Your task to perform on an android device: What's on Reddit today Image 0: 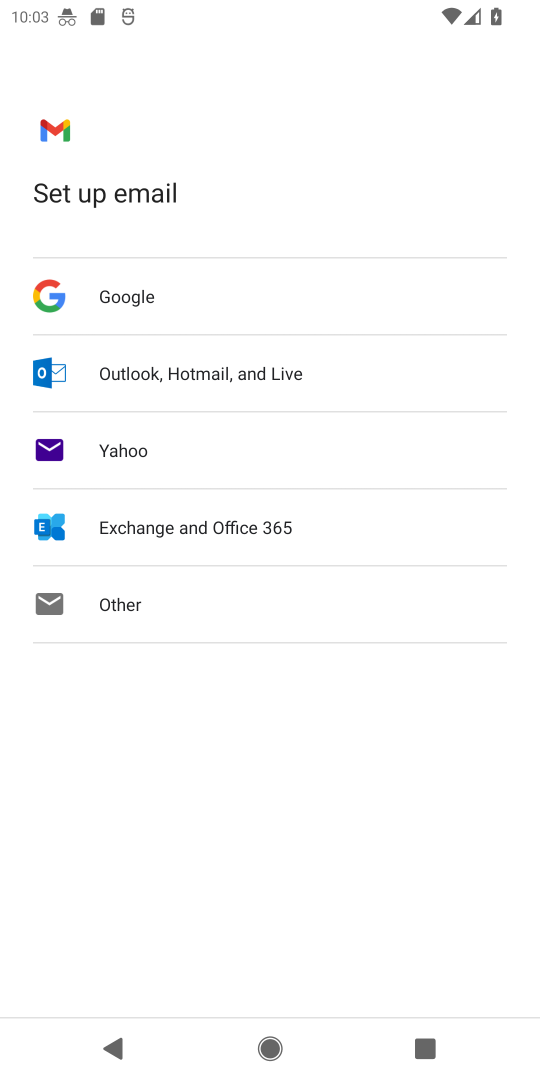
Step 0: press home button
Your task to perform on an android device: What's on Reddit today Image 1: 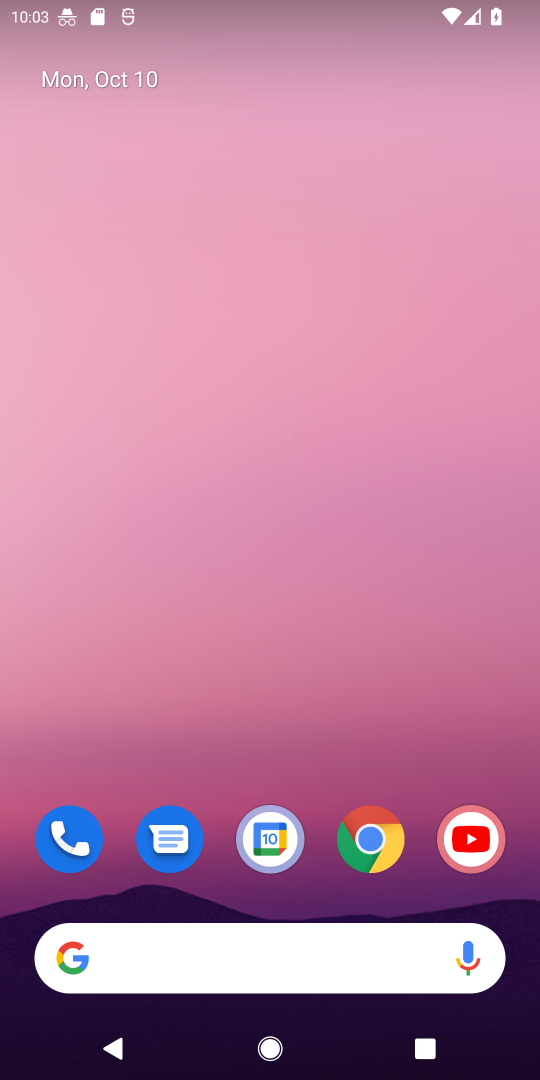
Step 1: drag from (351, 721) to (346, 3)
Your task to perform on an android device: What's on Reddit today Image 2: 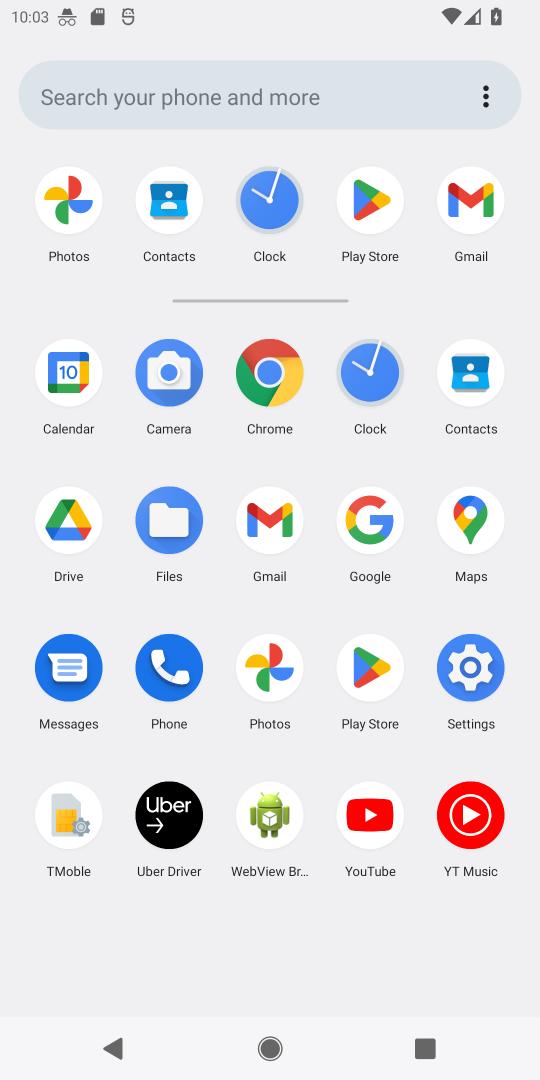
Step 2: click (280, 379)
Your task to perform on an android device: What's on Reddit today Image 3: 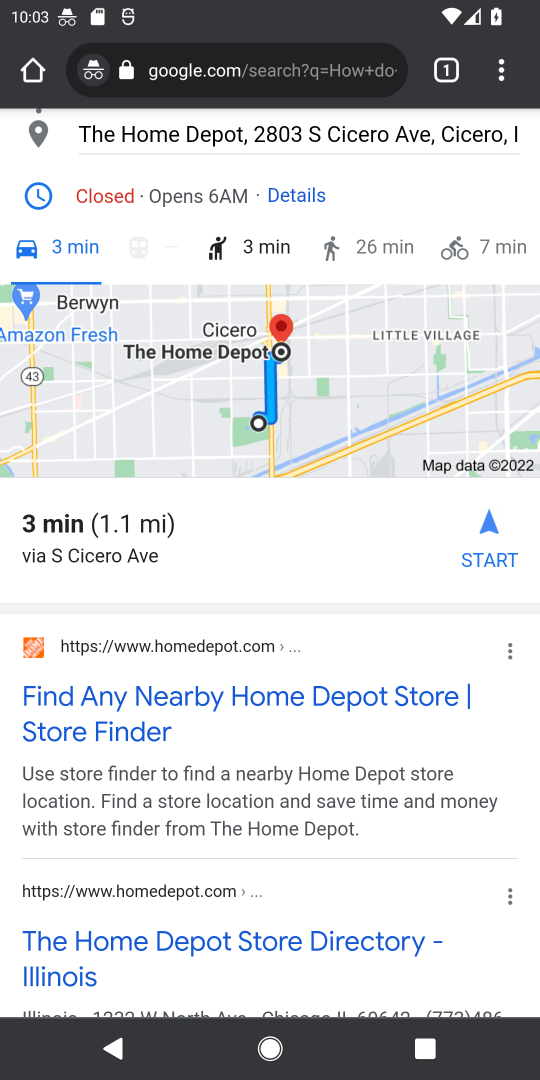
Step 3: click (261, 75)
Your task to perform on an android device: What's on Reddit today Image 4: 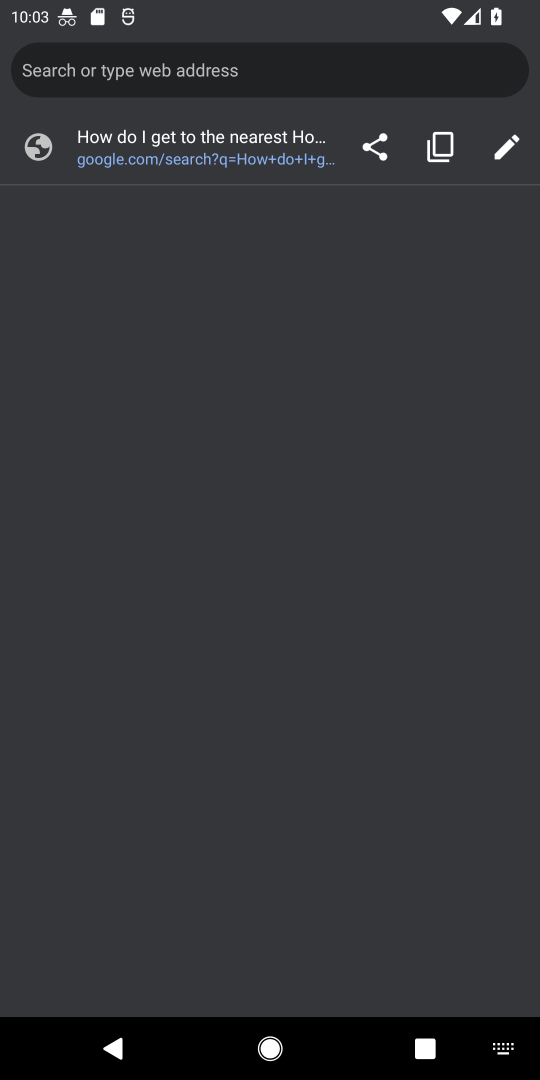
Step 4: type "What's on Reddit today"
Your task to perform on an android device: What's on Reddit today Image 5: 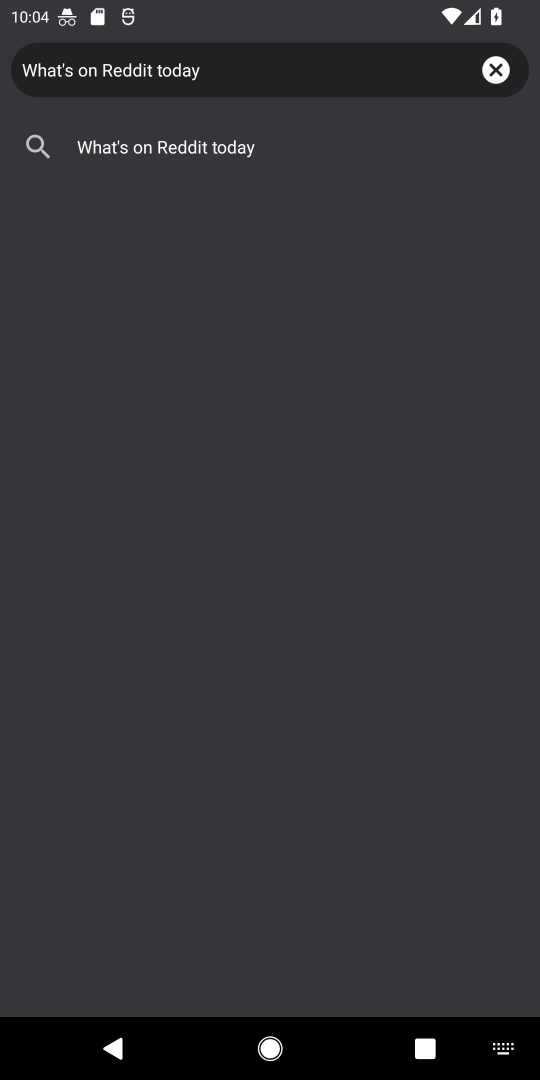
Step 5: press enter
Your task to perform on an android device: What's on Reddit today Image 6: 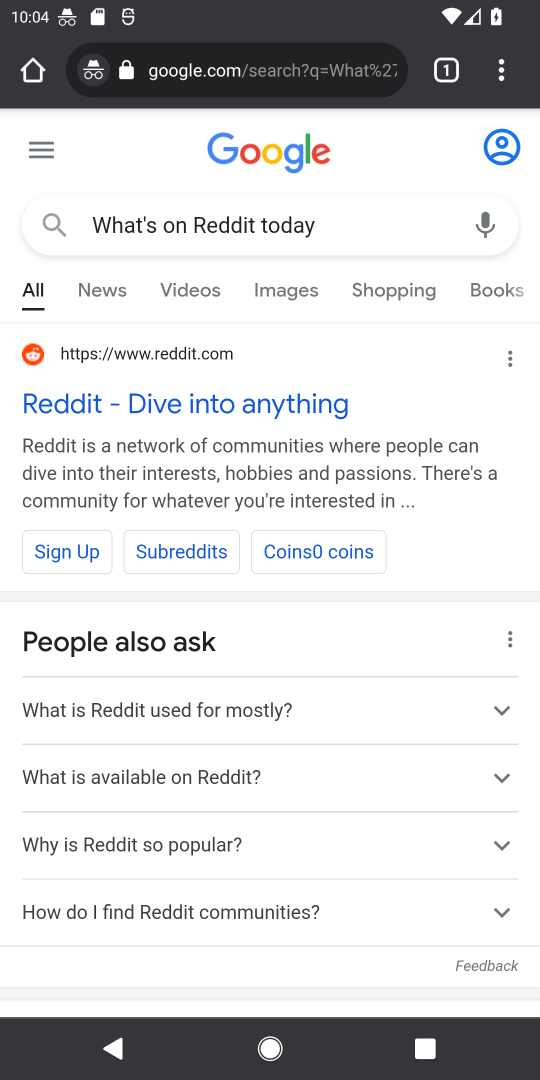
Step 6: click (254, 399)
Your task to perform on an android device: What's on Reddit today Image 7: 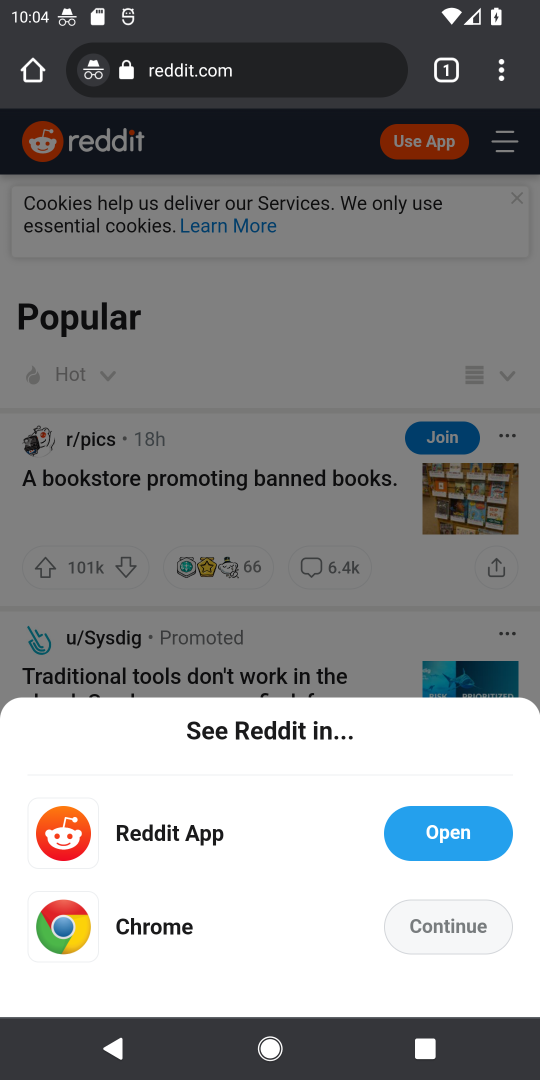
Step 7: click (458, 922)
Your task to perform on an android device: What's on Reddit today Image 8: 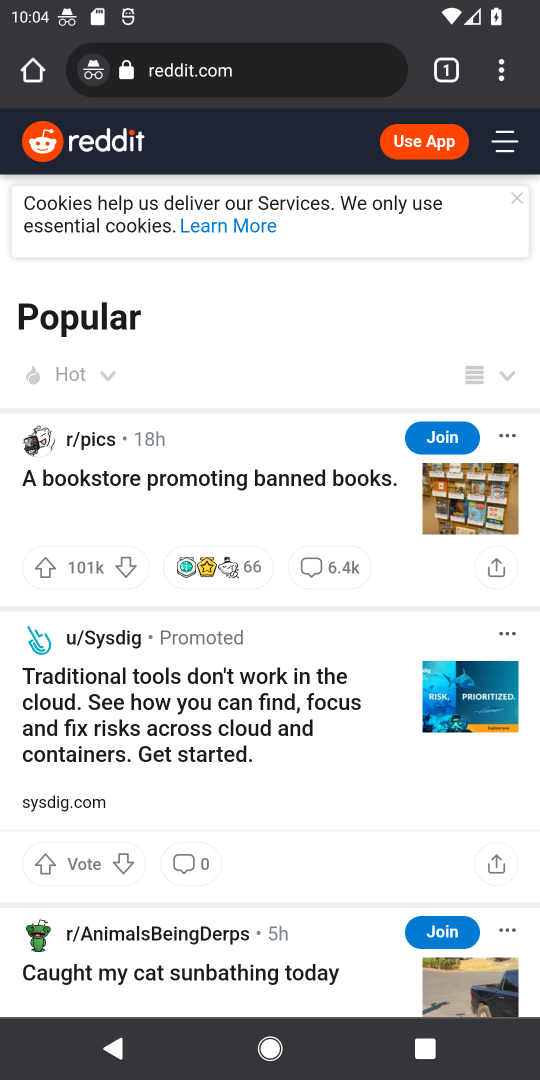
Step 8: task complete